Your task to perform on an android device: Open Yahoo.com Image 0: 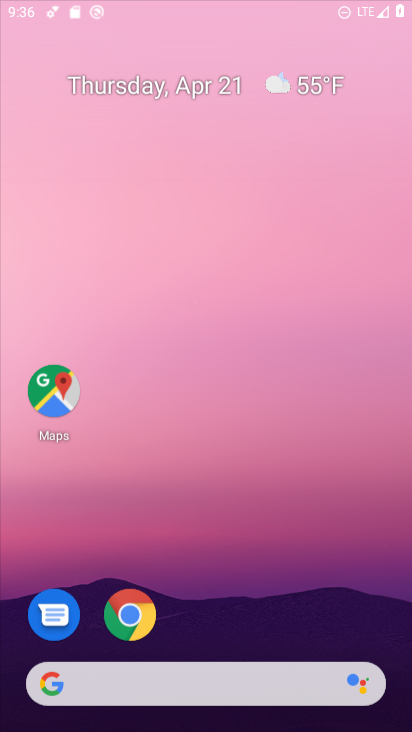
Step 0: drag from (320, 544) to (401, 84)
Your task to perform on an android device: Open Yahoo.com Image 1: 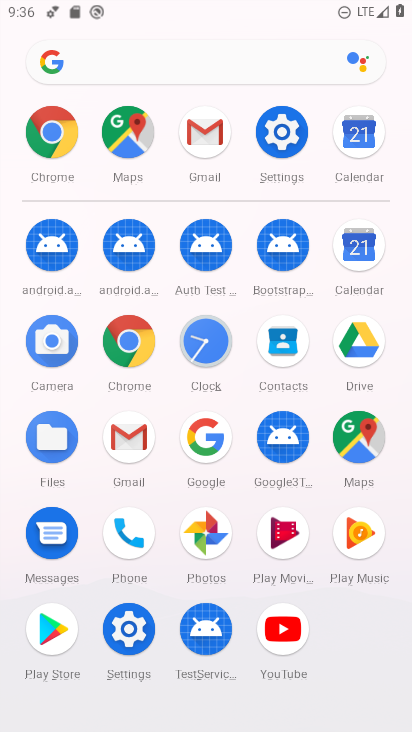
Step 1: click (54, 131)
Your task to perform on an android device: Open Yahoo.com Image 2: 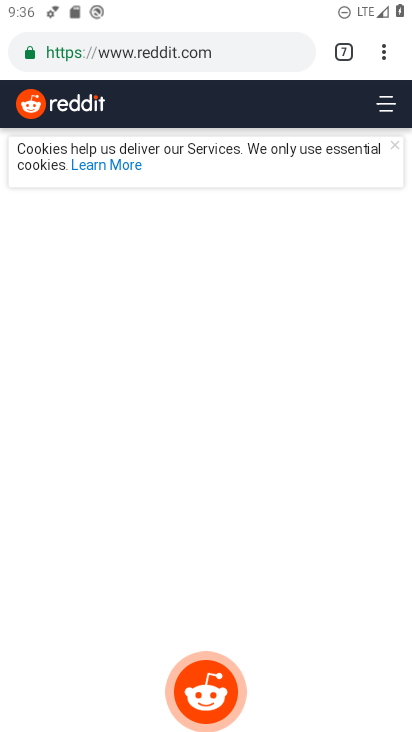
Step 2: drag from (384, 61) to (191, 114)
Your task to perform on an android device: Open Yahoo.com Image 3: 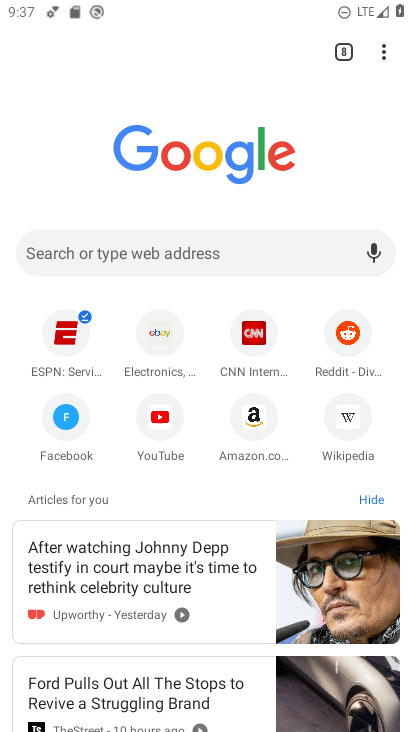
Step 3: click (116, 231)
Your task to perform on an android device: Open Yahoo.com Image 4: 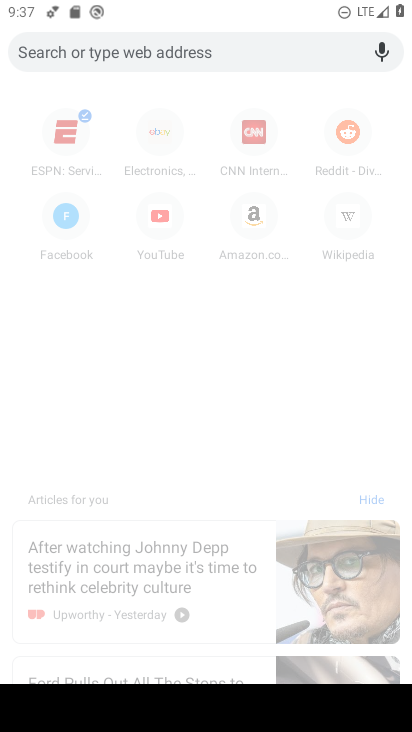
Step 4: type "yahoo.com"
Your task to perform on an android device: Open Yahoo.com Image 5: 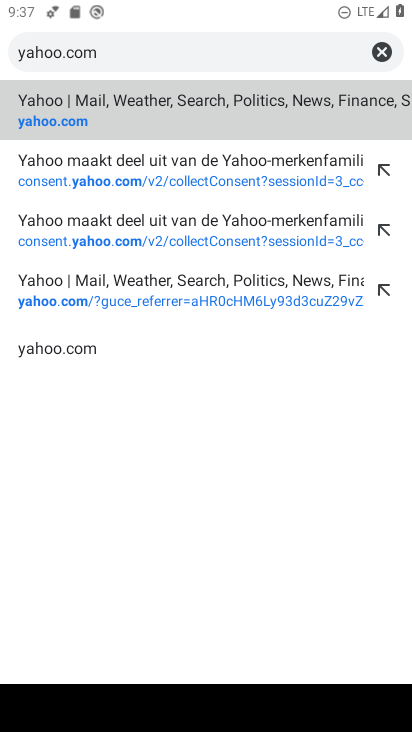
Step 5: click (39, 106)
Your task to perform on an android device: Open Yahoo.com Image 6: 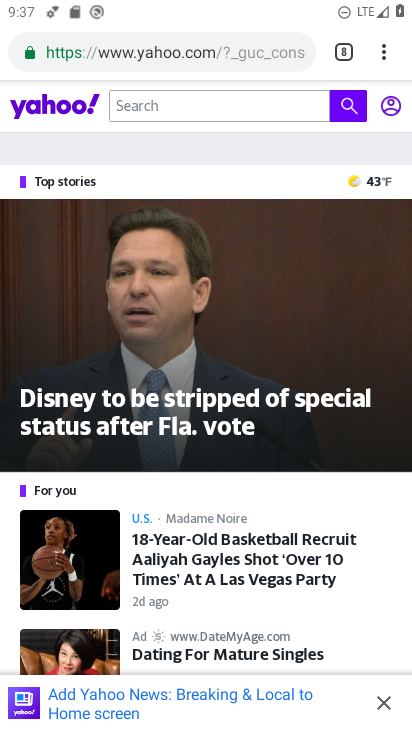
Step 6: task complete